Your task to perform on an android device: install app "Google Chat" Image 0: 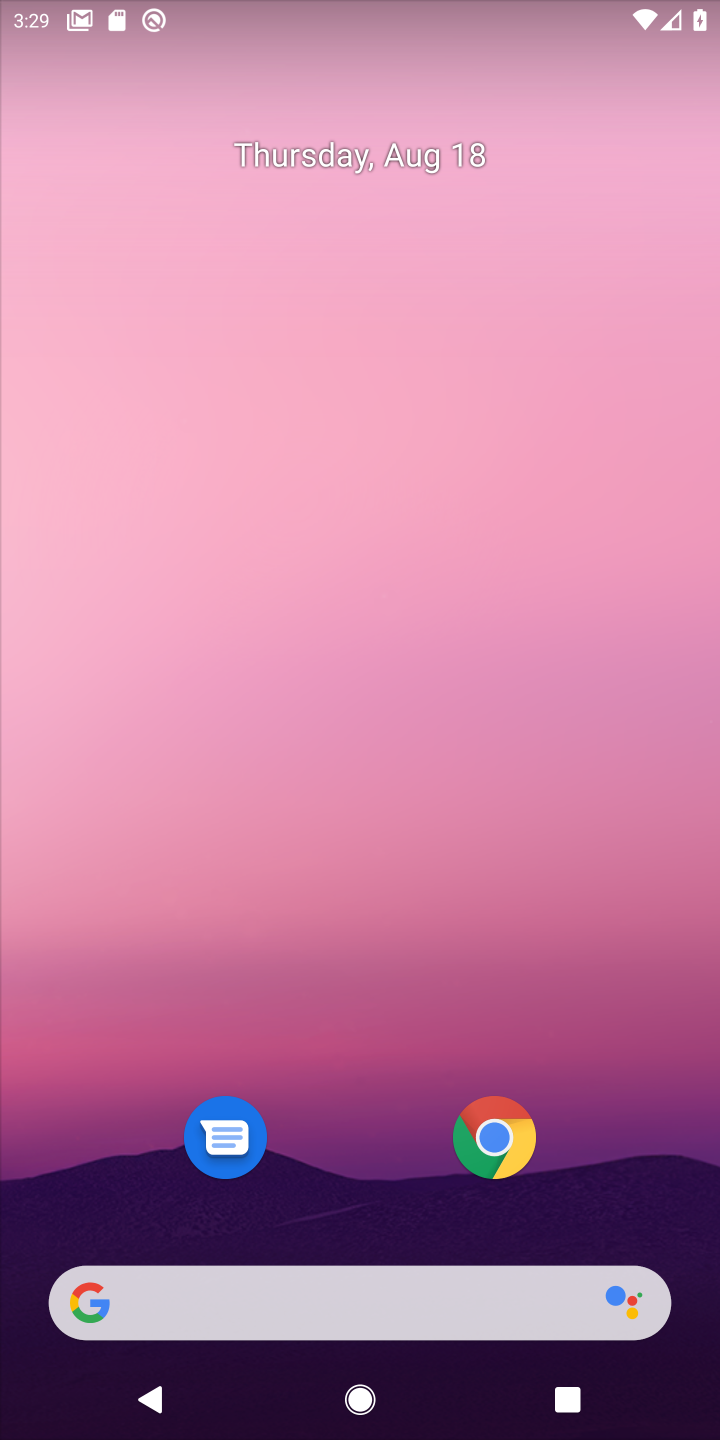
Step 0: click (339, 153)
Your task to perform on an android device: install app "Google Chat" Image 1: 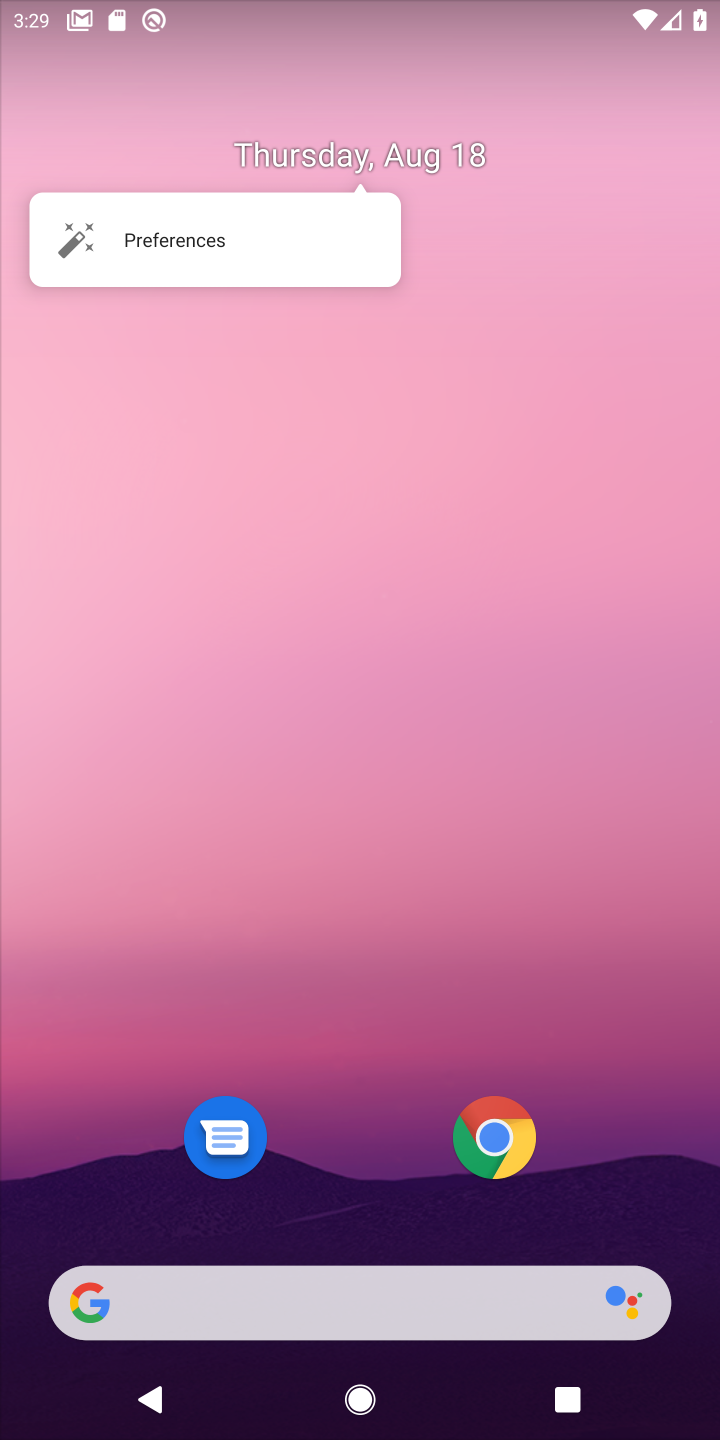
Step 1: click (387, 1175)
Your task to perform on an android device: install app "Google Chat" Image 2: 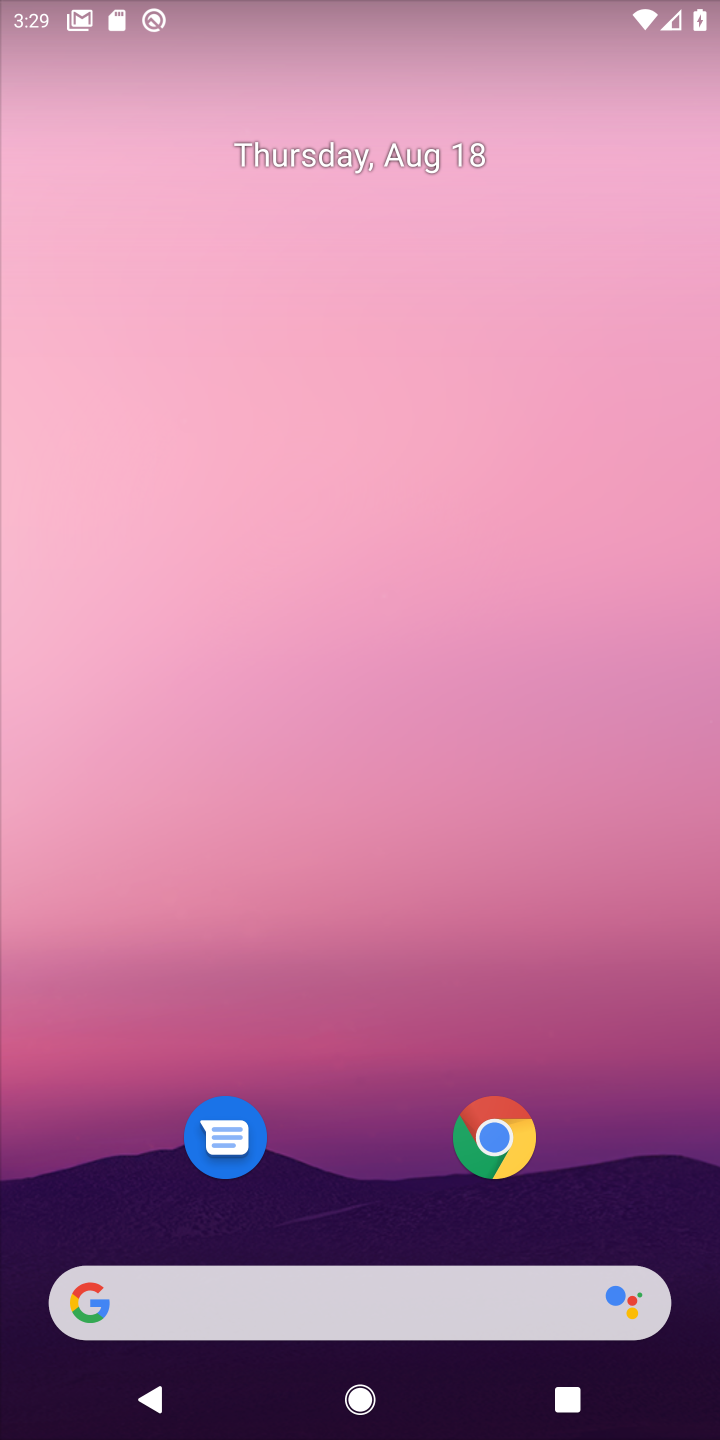
Step 2: drag from (409, 444) to (409, 211)
Your task to perform on an android device: install app "Google Chat" Image 3: 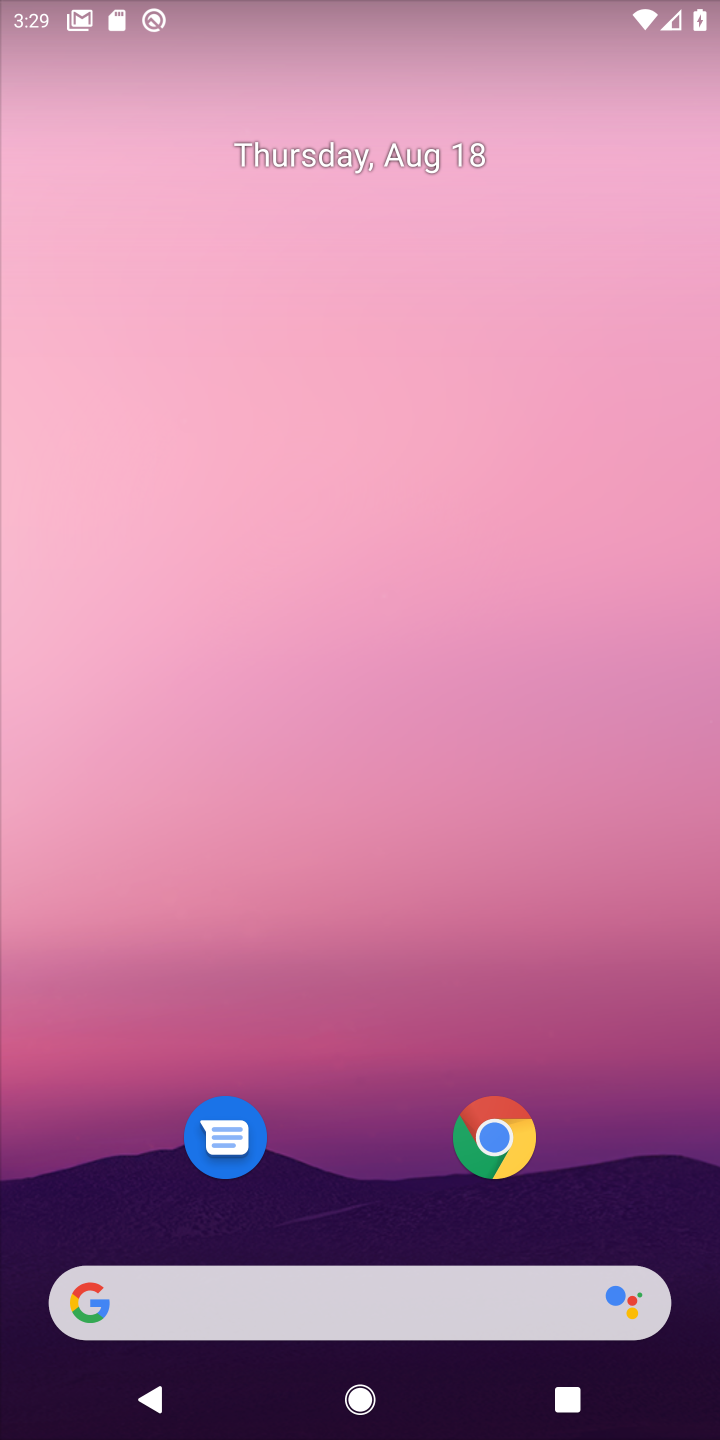
Step 3: click (291, 318)
Your task to perform on an android device: install app "Google Chat" Image 4: 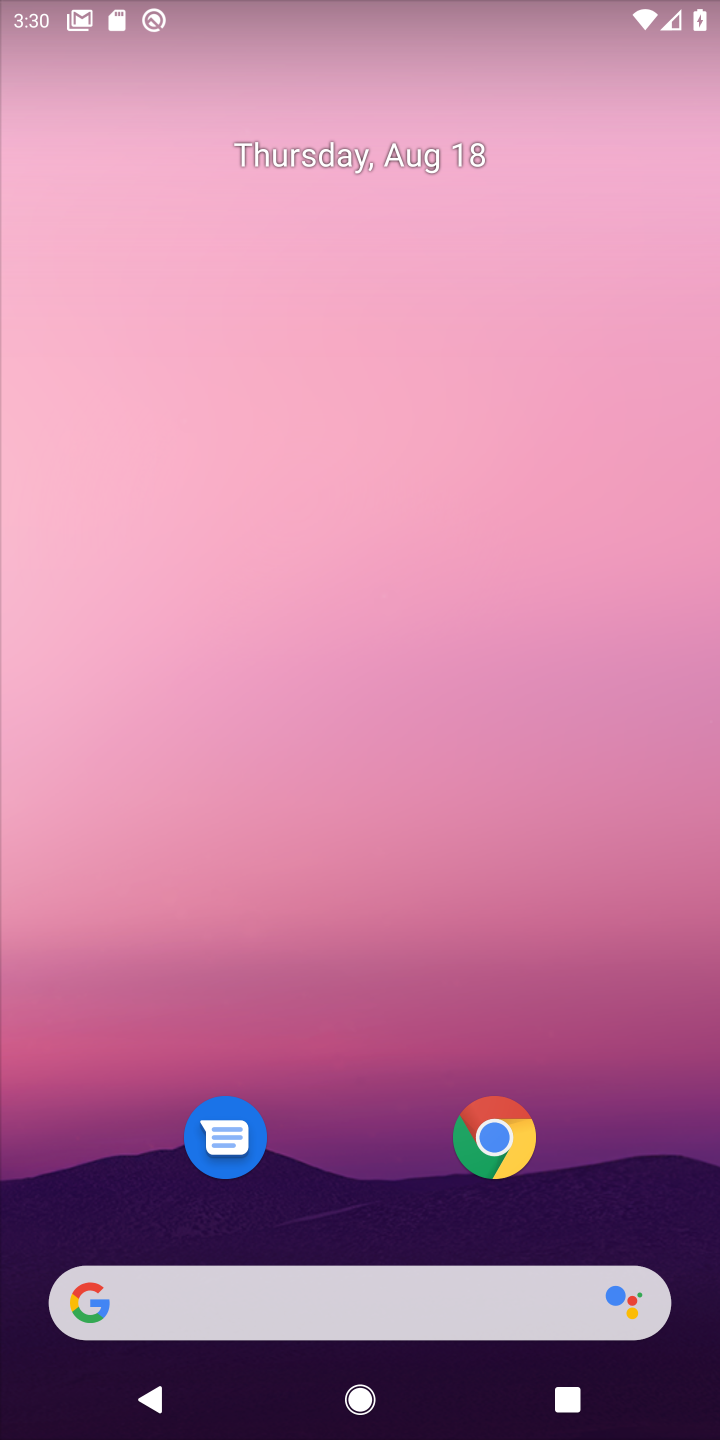
Step 4: click (389, 179)
Your task to perform on an android device: install app "Google Chat" Image 5: 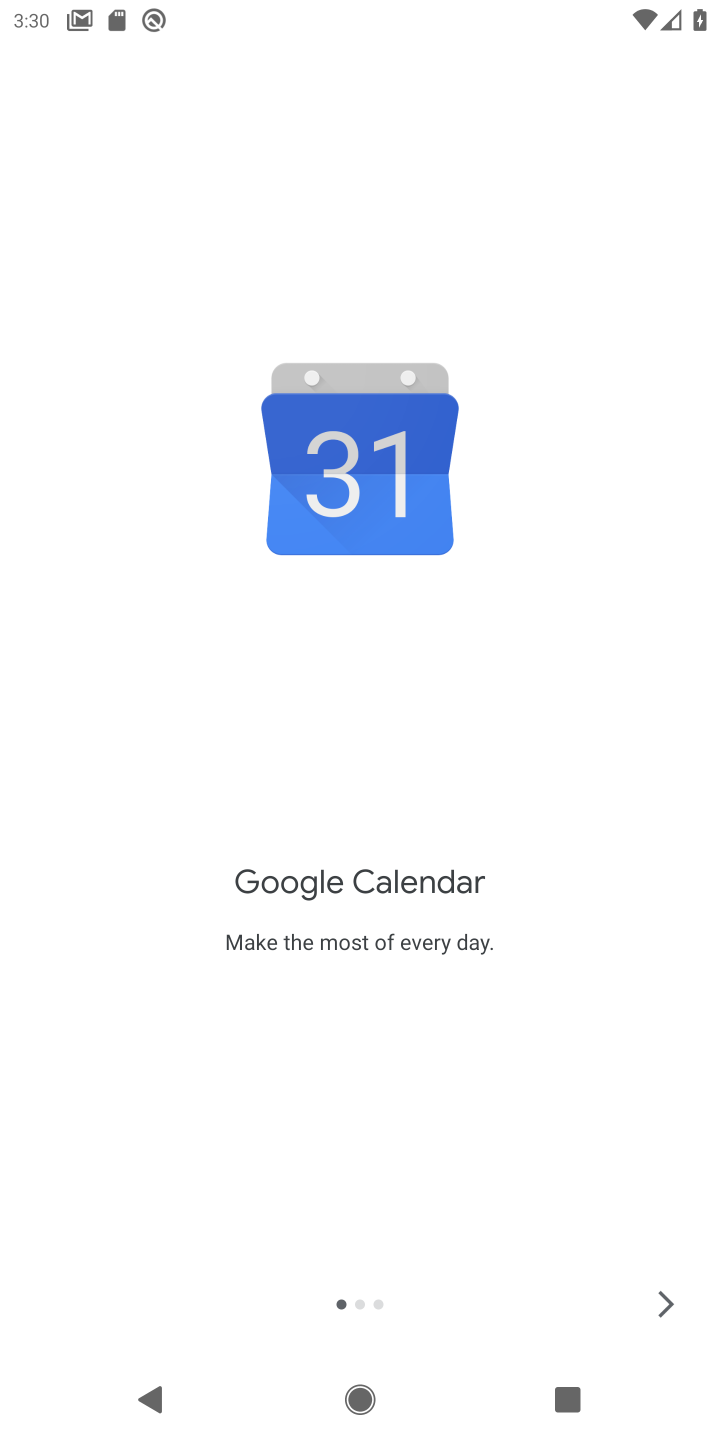
Step 5: drag from (375, 1127) to (422, 187)
Your task to perform on an android device: install app "Google Chat" Image 6: 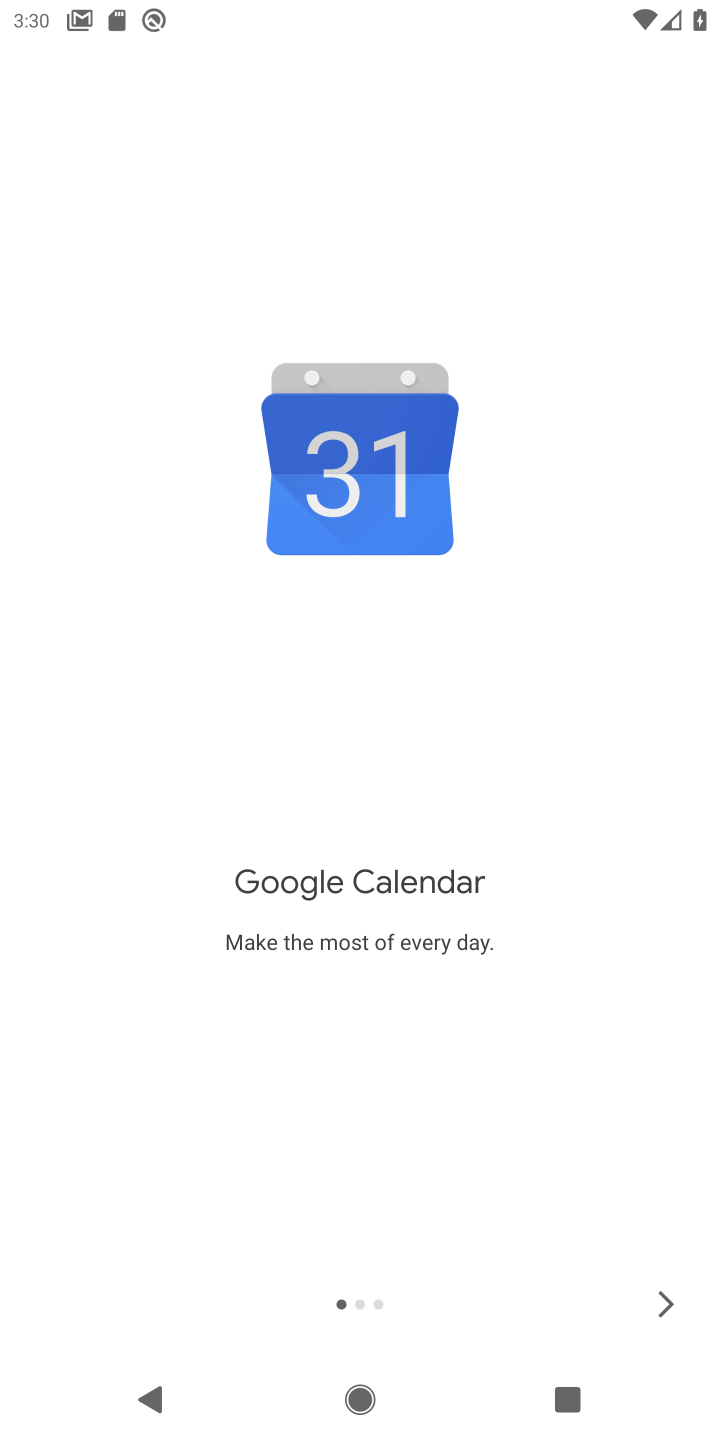
Step 6: press home button
Your task to perform on an android device: install app "Google Chat" Image 7: 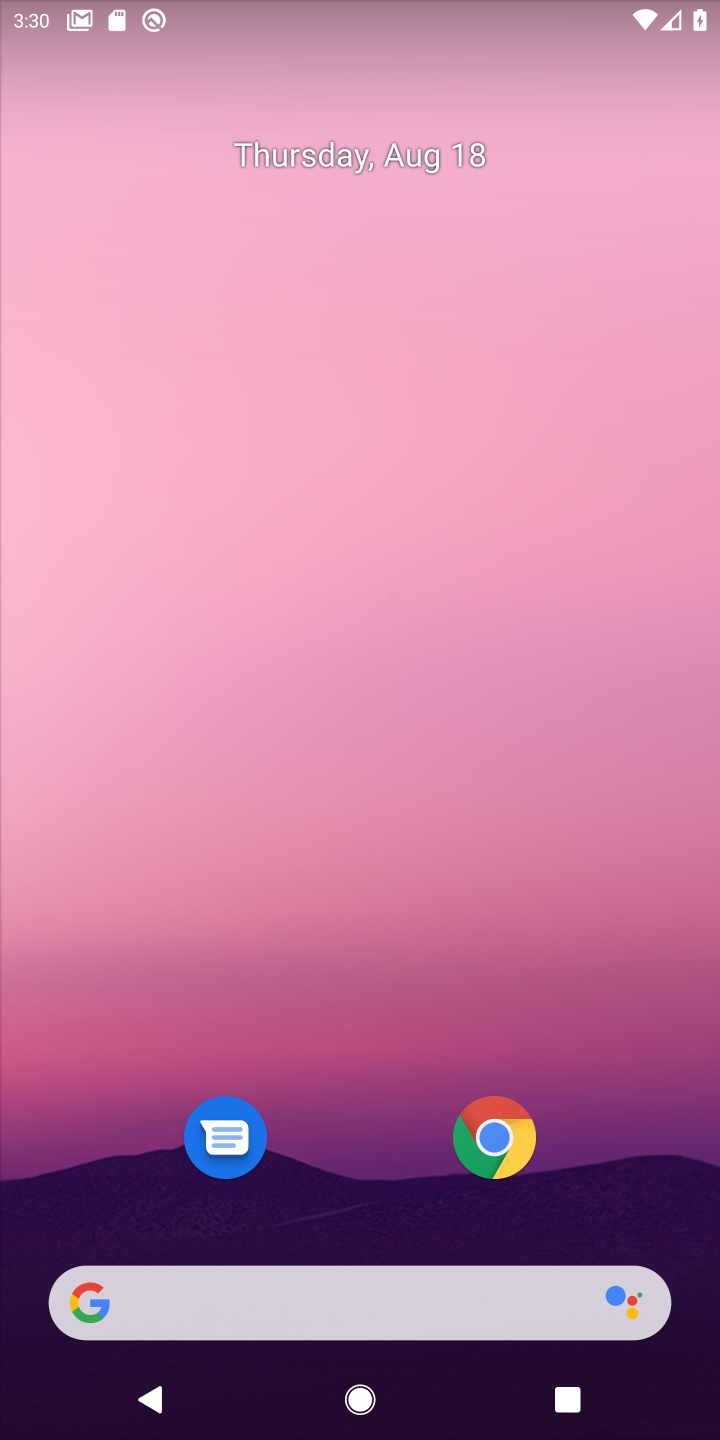
Step 7: click (305, 119)
Your task to perform on an android device: install app "Google Chat" Image 8: 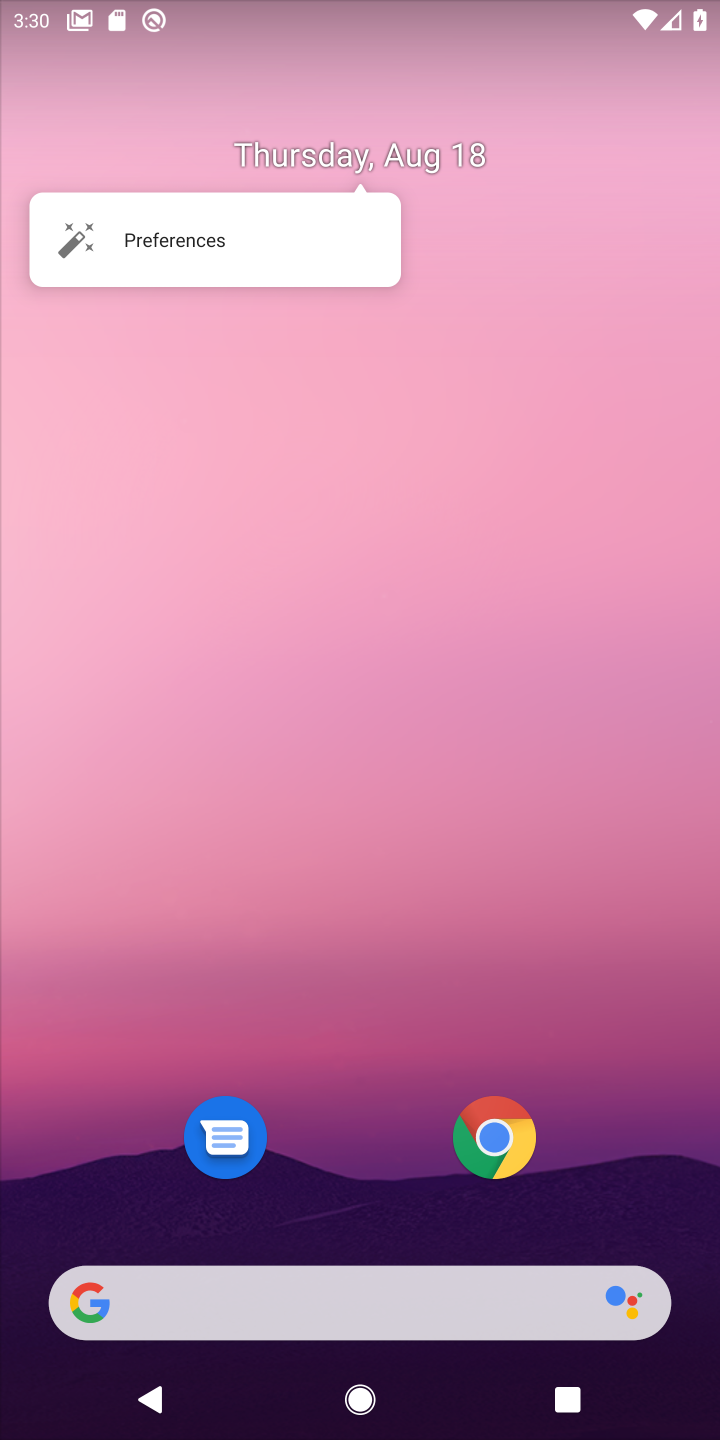
Step 8: click (323, 1134)
Your task to perform on an android device: install app "Google Chat" Image 9: 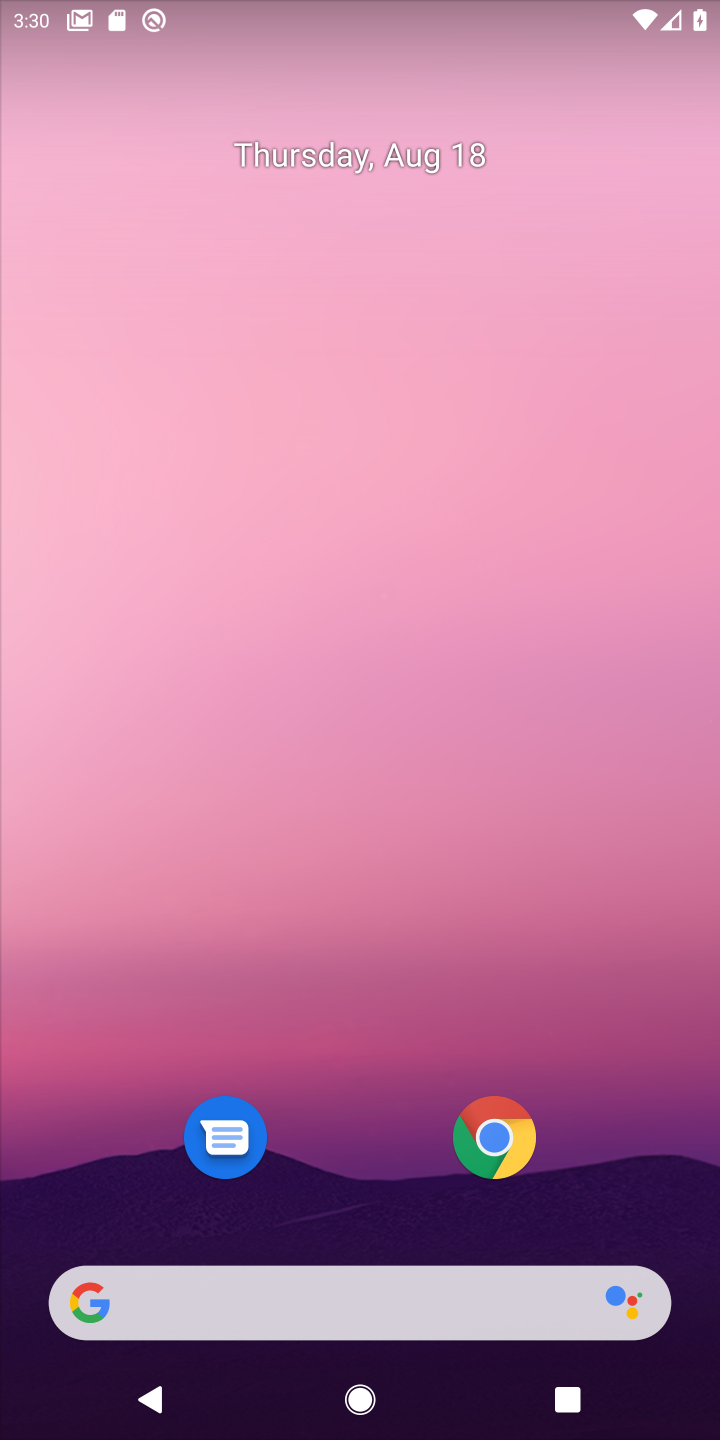
Step 9: drag from (331, 1171) to (391, 79)
Your task to perform on an android device: install app "Google Chat" Image 10: 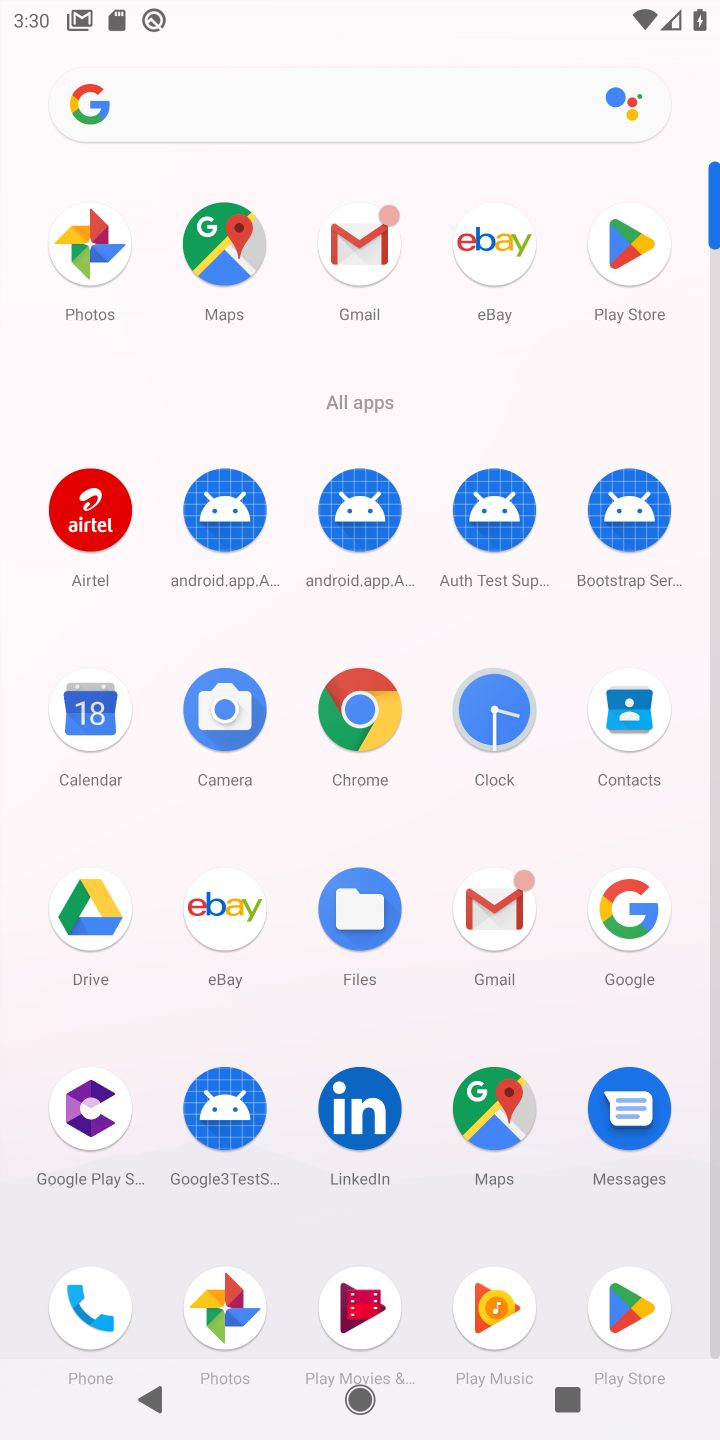
Step 10: click (631, 259)
Your task to perform on an android device: install app "Google Chat" Image 11: 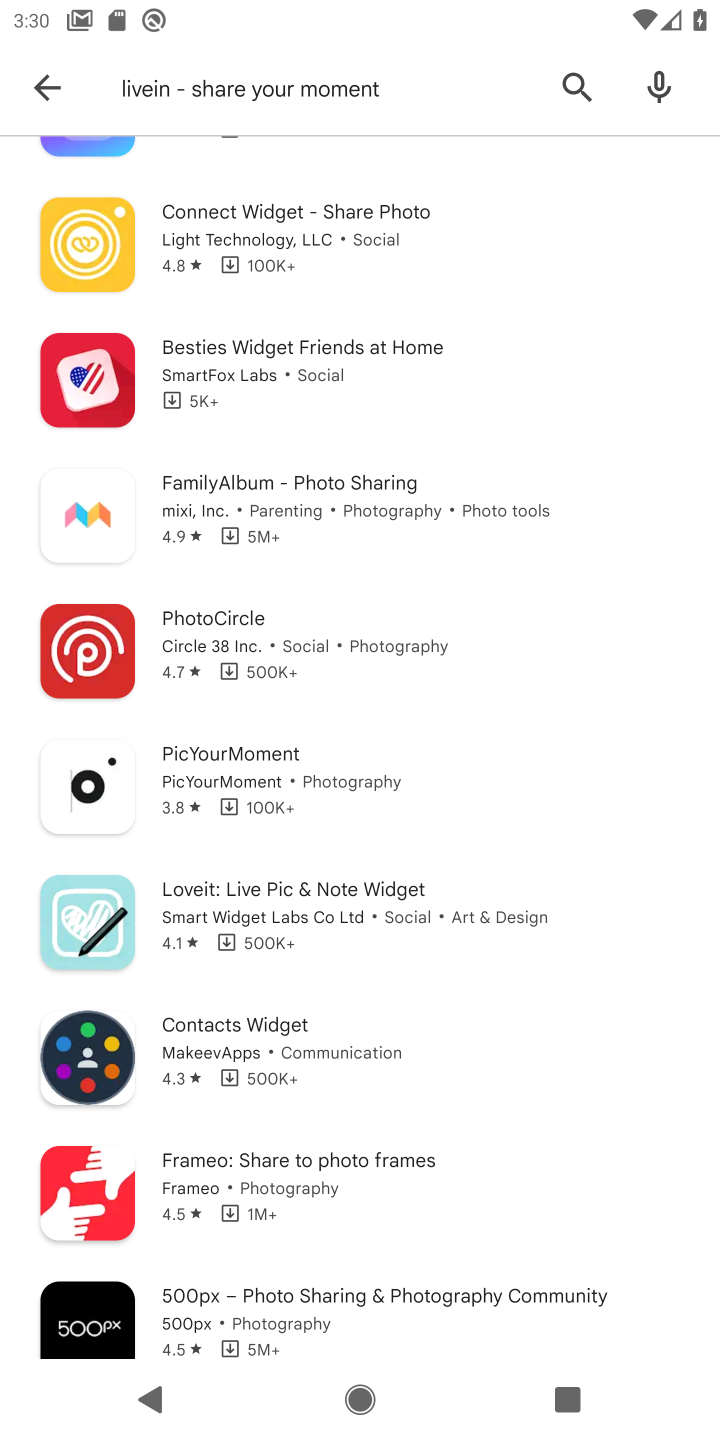
Step 11: click (42, 81)
Your task to perform on an android device: install app "Google Chat" Image 12: 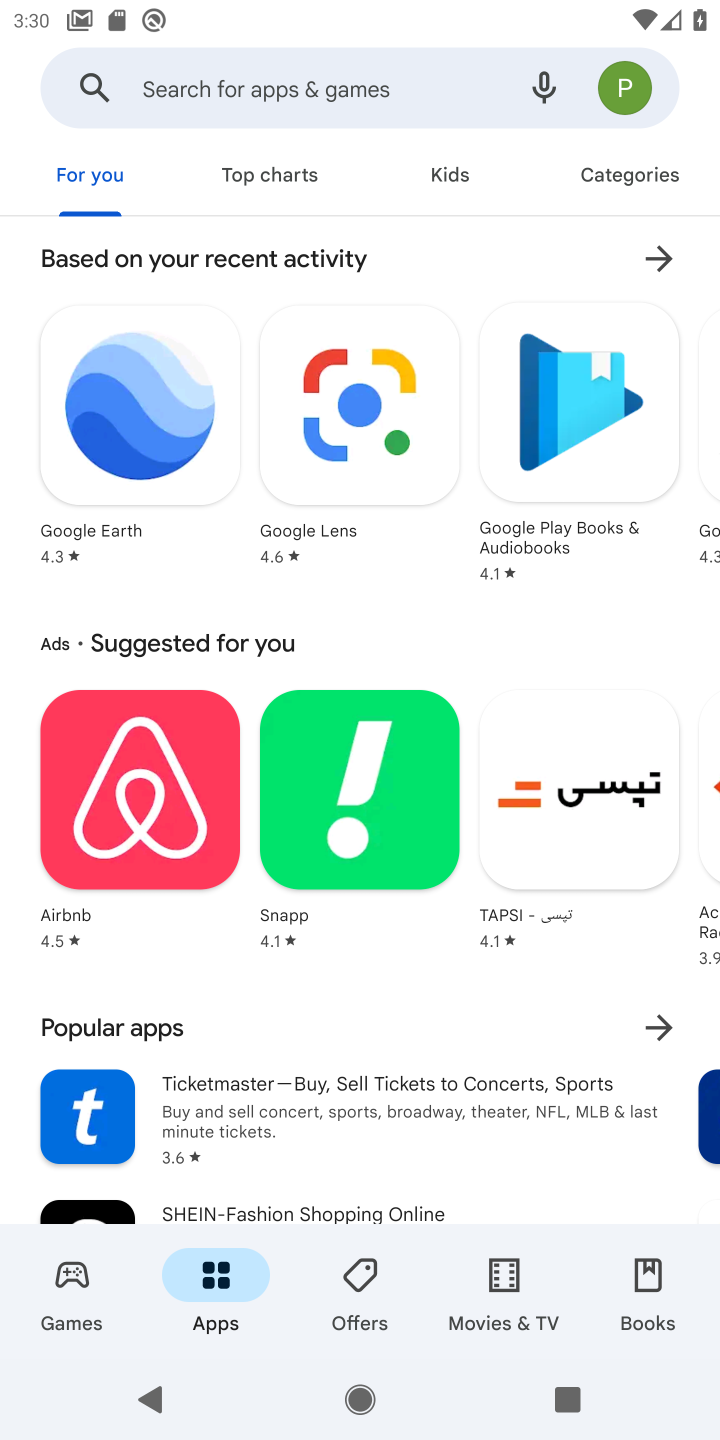
Step 12: click (283, 87)
Your task to perform on an android device: install app "Google Chat" Image 13: 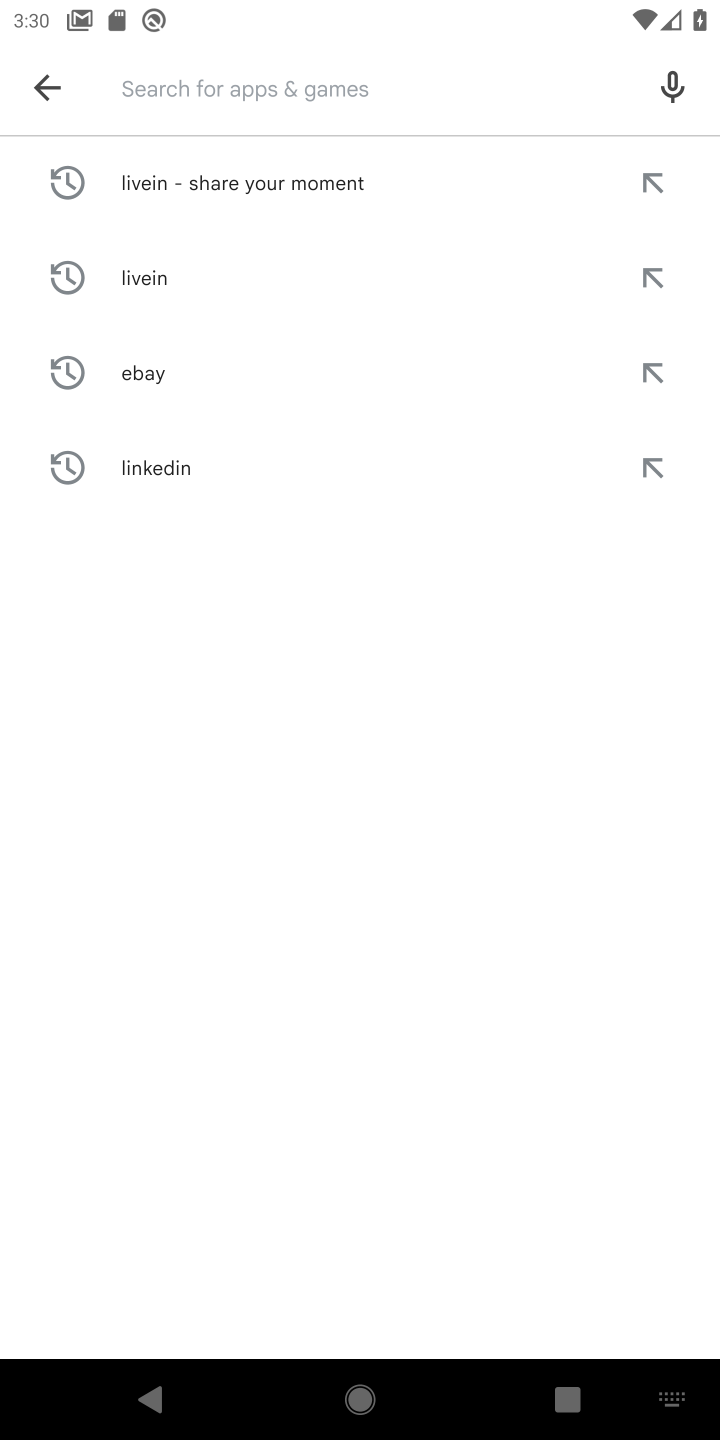
Step 13: type "Google Chat"
Your task to perform on an android device: install app "Google Chat" Image 14: 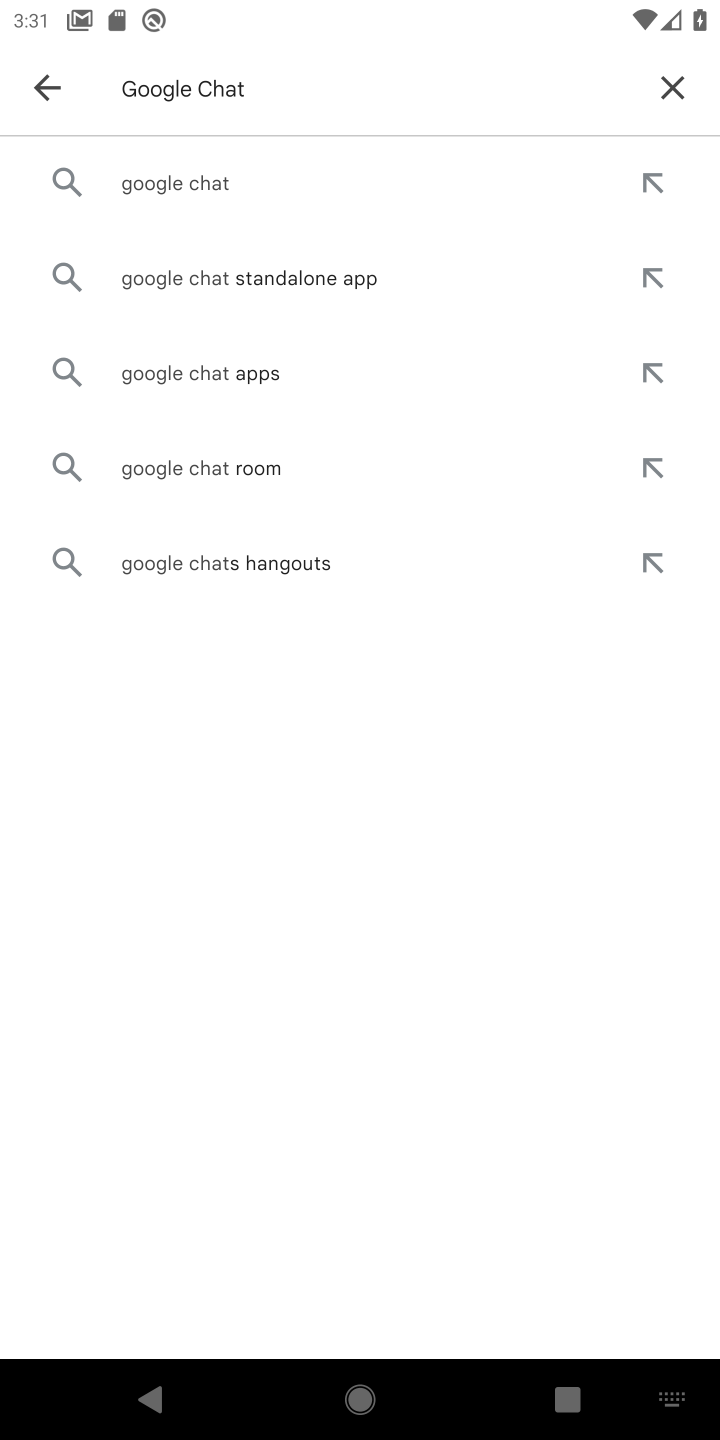
Step 14: click (172, 184)
Your task to perform on an android device: install app "Google Chat" Image 15: 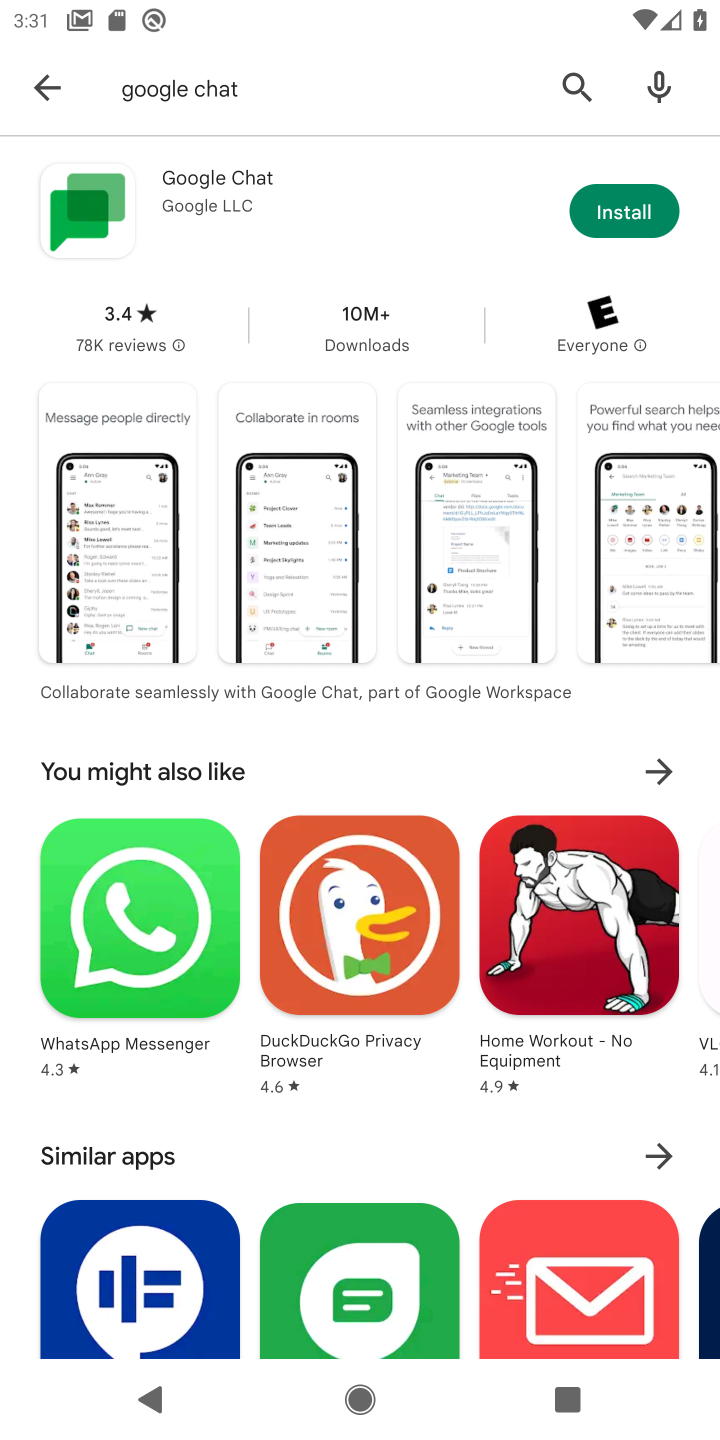
Step 15: click (628, 201)
Your task to perform on an android device: install app "Google Chat" Image 16: 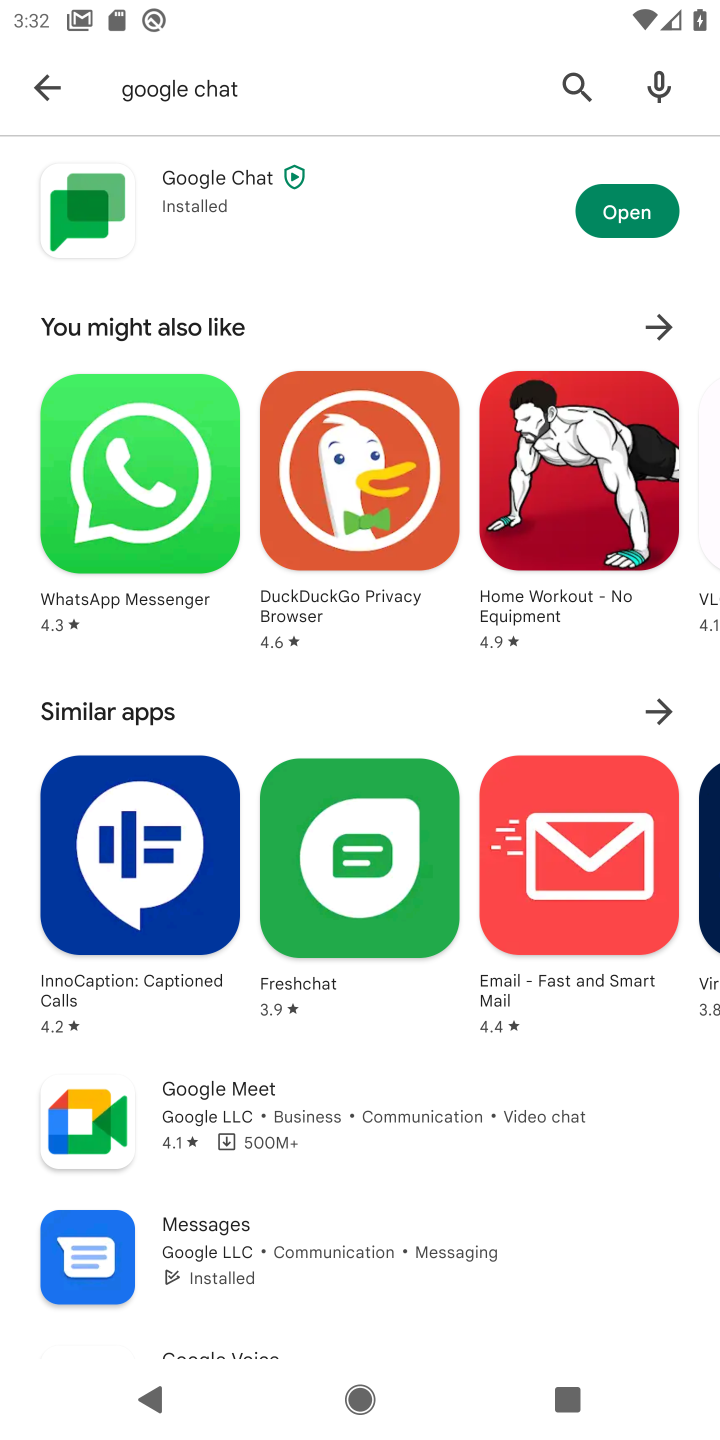
Step 16: click (628, 201)
Your task to perform on an android device: install app "Google Chat" Image 17: 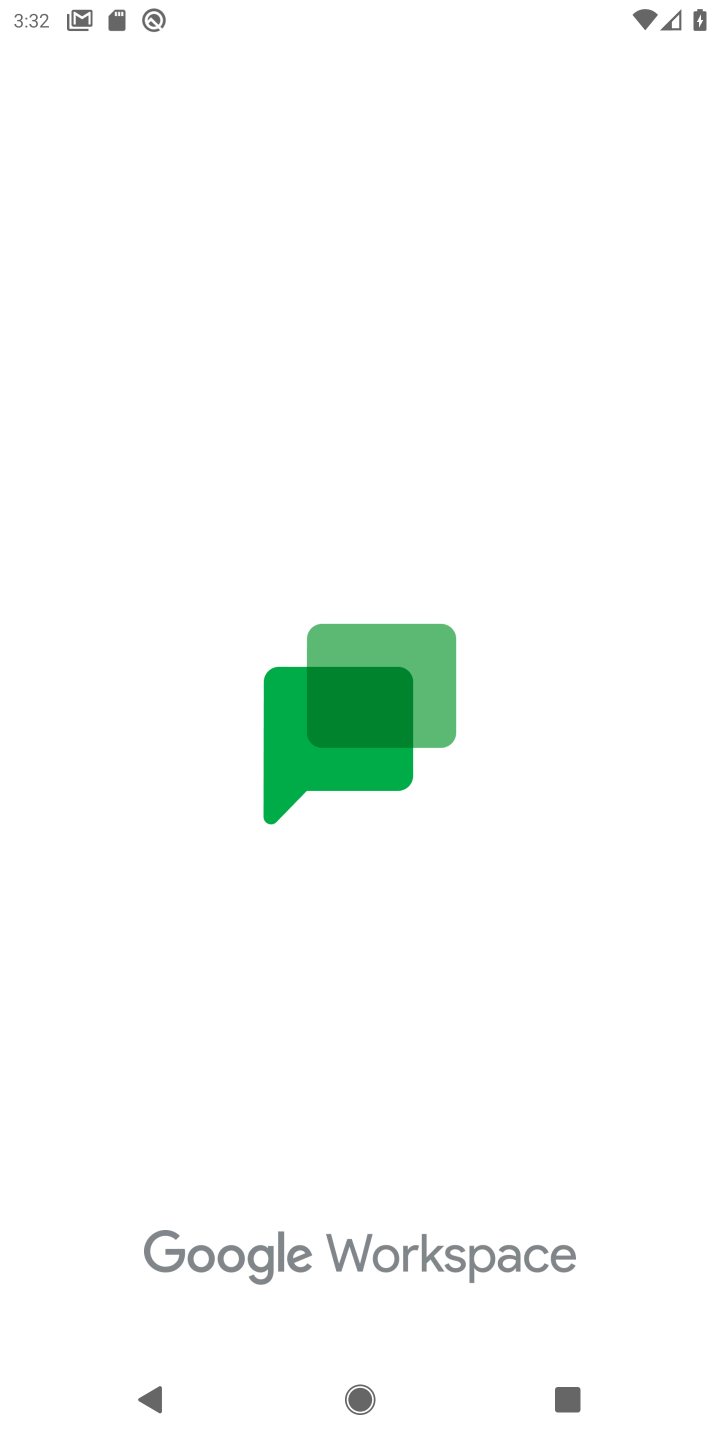
Step 17: task complete